Your task to perform on an android device: find photos in the google photos app Image 0: 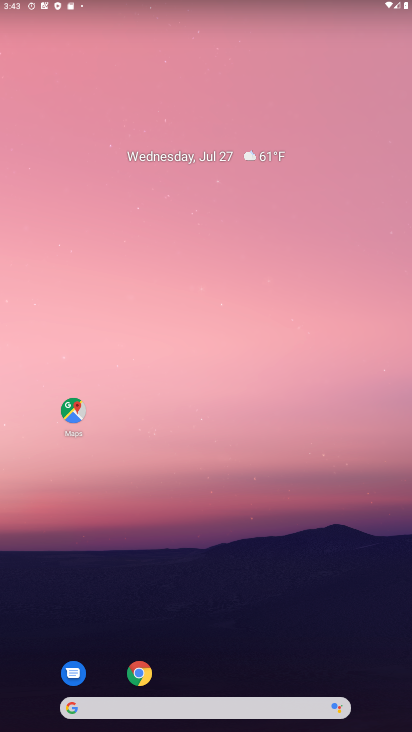
Step 0: drag from (88, 415) to (151, 93)
Your task to perform on an android device: find photos in the google photos app Image 1: 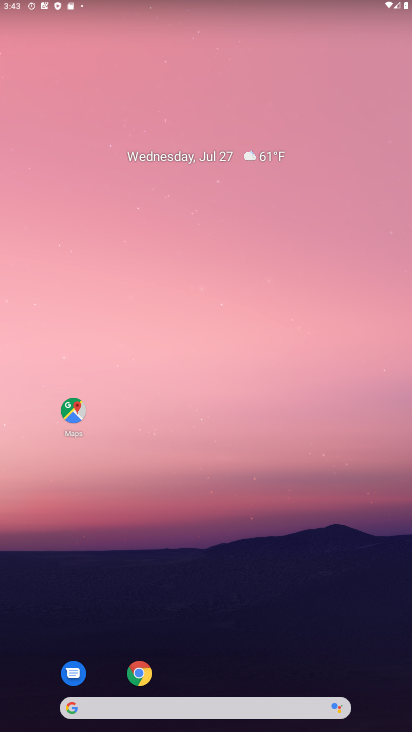
Step 1: drag from (40, 687) to (220, 36)
Your task to perform on an android device: find photos in the google photos app Image 2: 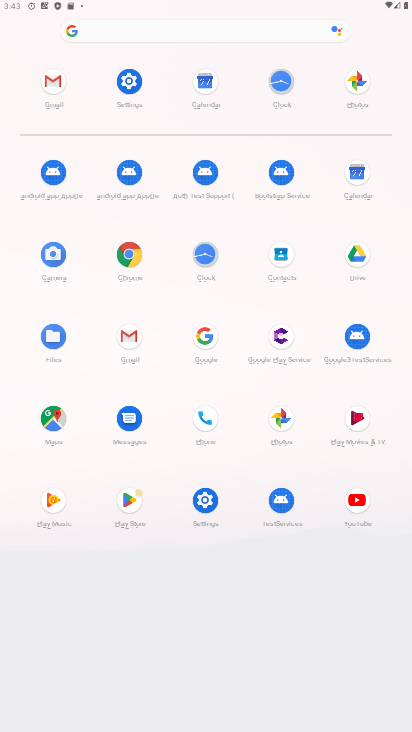
Step 2: click (250, 419)
Your task to perform on an android device: find photos in the google photos app Image 3: 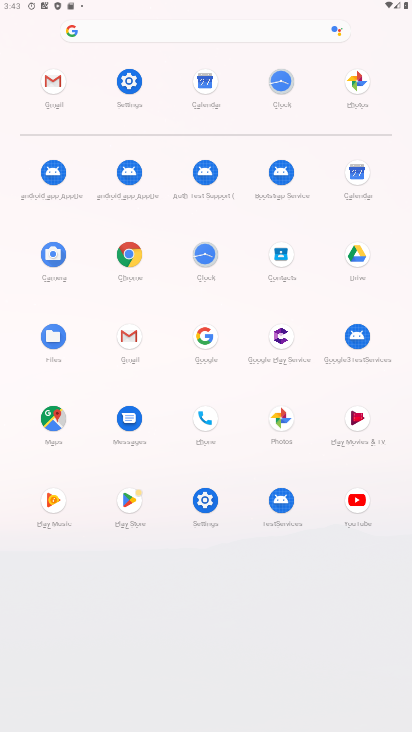
Step 3: click (274, 415)
Your task to perform on an android device: find photos in the google photos app Image 4: 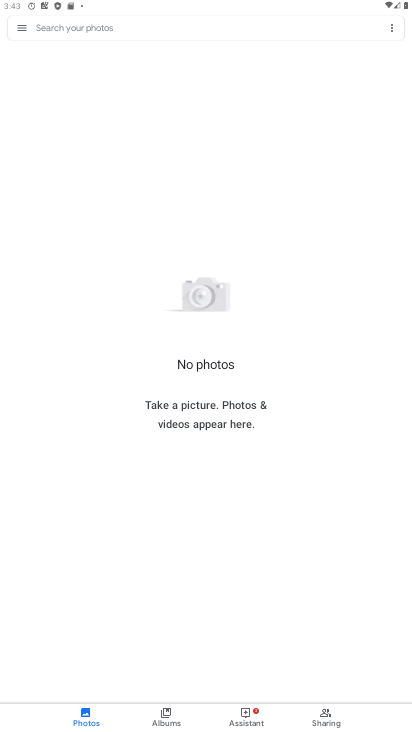
Step 4: task complete